Your task to perform on an android device: turn on priority inbox in the gmail app Image 0: 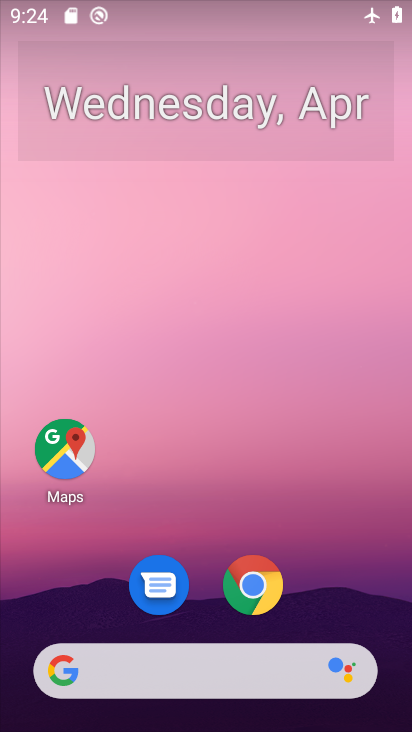
Step 0: drag from (341, 534) to (325, 100)
Your task to perform on an android device: turn on priority inbox in the gmail app Image 1: 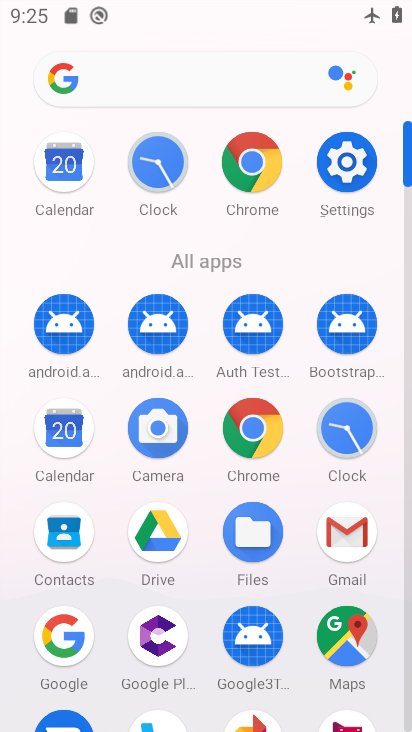
Step 1: click (348, 522)
Your task to perform on an android device: turn on priority inbox in the gmail app Image 2: 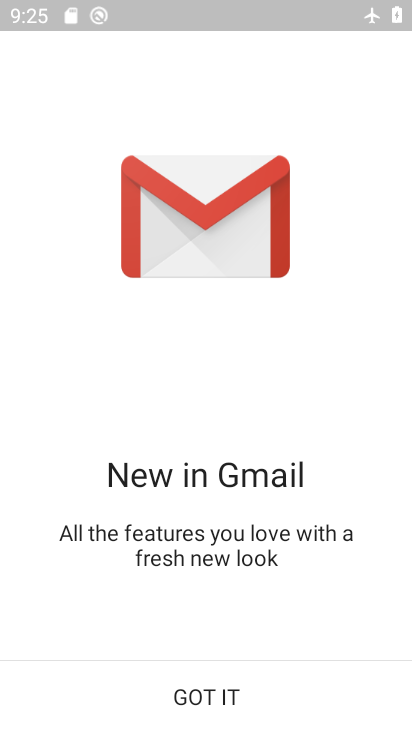
Step 2: click (301, 694)
Your task to perform on an android device: turn on priority inbox in the gmail app Image 3: 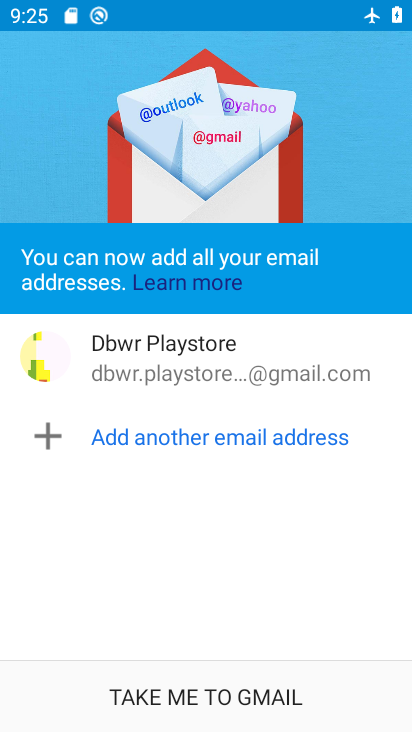
Step 3: click (301, 692)
Your task to perform on an android device: turn on priority inbox in the gmail app Image 4: 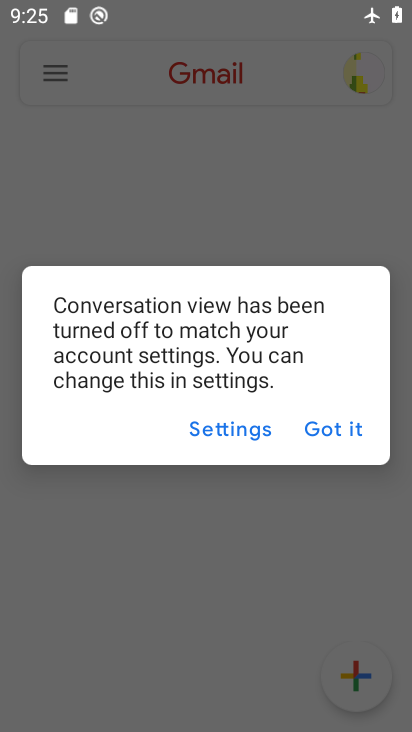
Step 4: click (341, 426)
Your task to perform on an android device: turn on priority inbox in the gmail app Image 5: 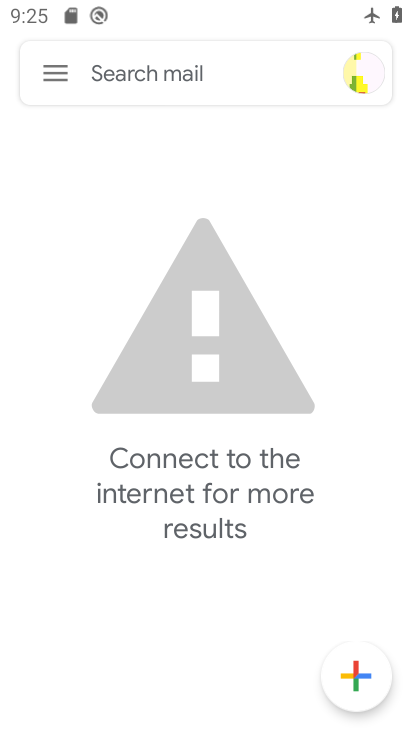
Step 5: task complete